Your task to perform on an android device: open app "HBO Max: Stream TV & Movies" (install if not already installed) and enter user name: "faring@outlook.com" and password: "appropriately" Image 0: 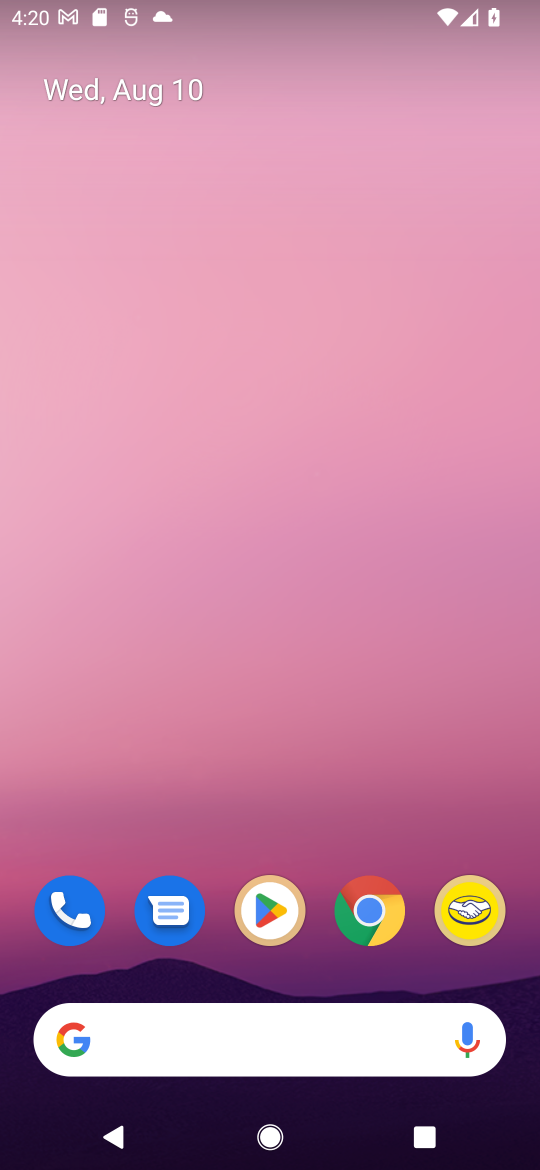
Step 0: click (253, 920)
Your task to perform on an android device: open app "HBO Max: Stream TV & Movies" (install if not already installed) and enter user name: "faring@outlook.com" and password: "appropriately" Image 1: 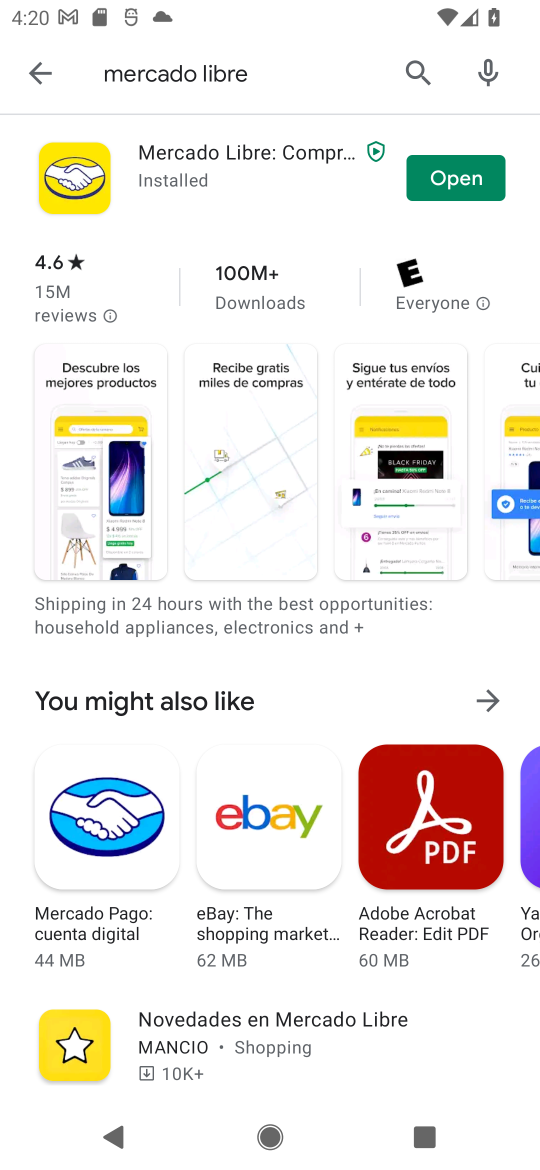
Step 1: click (413, 77)
Your task to perform on an android device: open app "HBO Max: Stream TV & Movies" (install if not already installed) and enter user name: "faring@outlook.com" and password: "appropriately" Image 2: 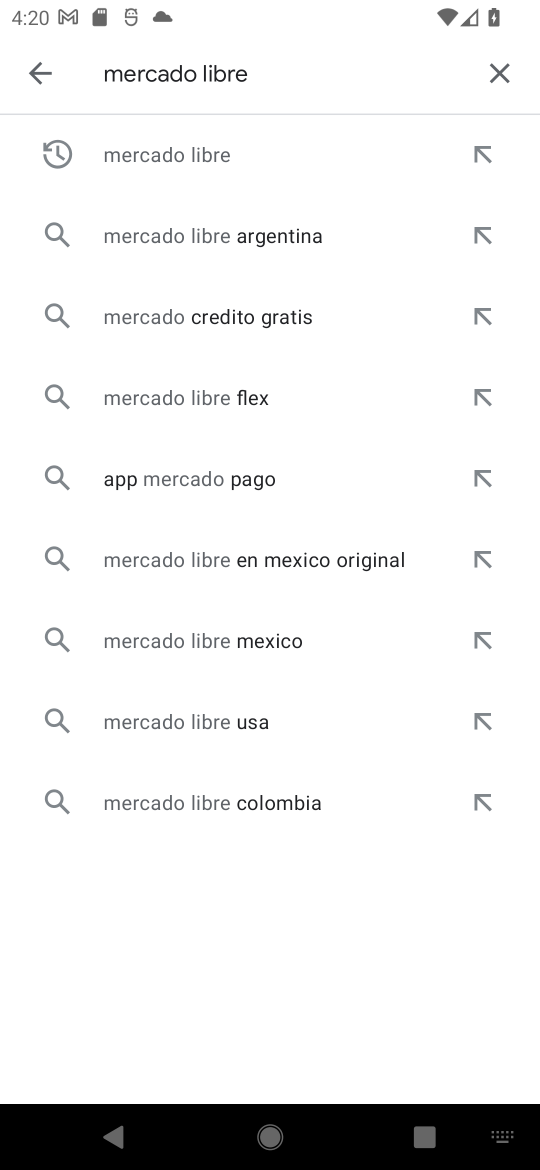
Step 2: click (496, 60)
Your task to perform on an android device: open app "HBO Max: Stream TV & Movies" (install if not already installed) and enter user name: "faring@outlook.com" and password: "appropriately" Image 3: 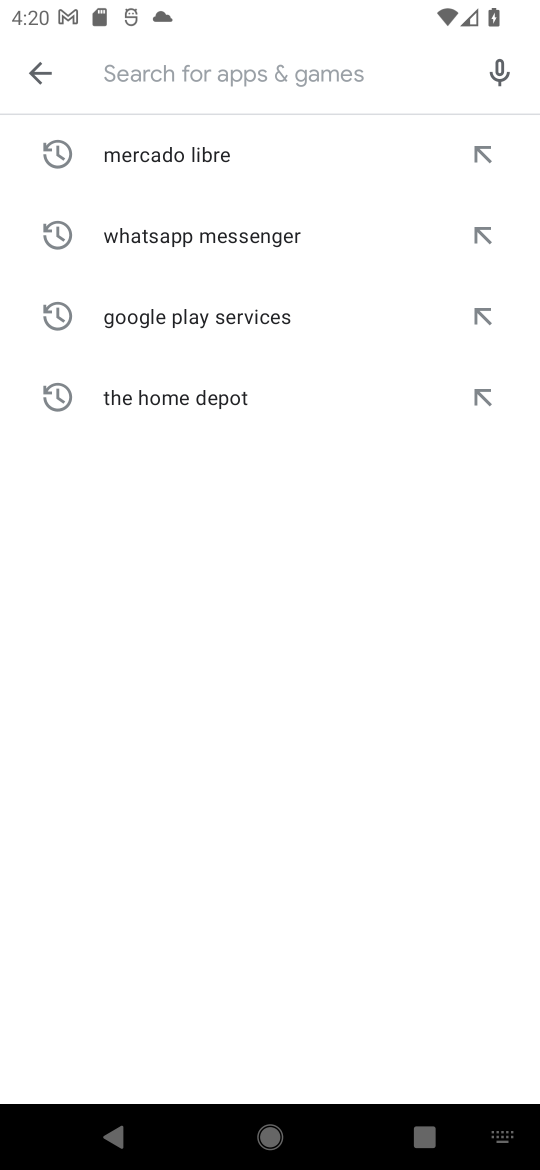
Step 3: click (289, 70)
Your task to perform on an android device: open app "HBO Max: Stream TV & Movies" (install if not already installed) and enter user name: "faring@outlook.com" and password: "appropriately" Image 4: 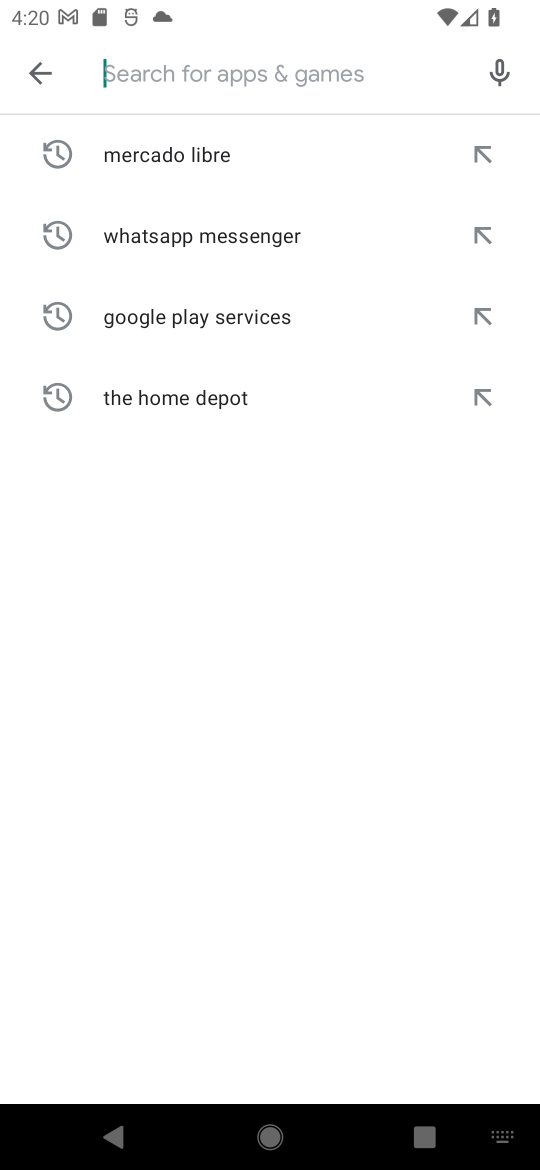
Step 4: type "hbo"
Your task to perform on an android device: open app "HBO Max: Stream TV & Movies" (install if not already installed) and enter user name: "faring@outlook.com" and password: "appropriately" Image 5: 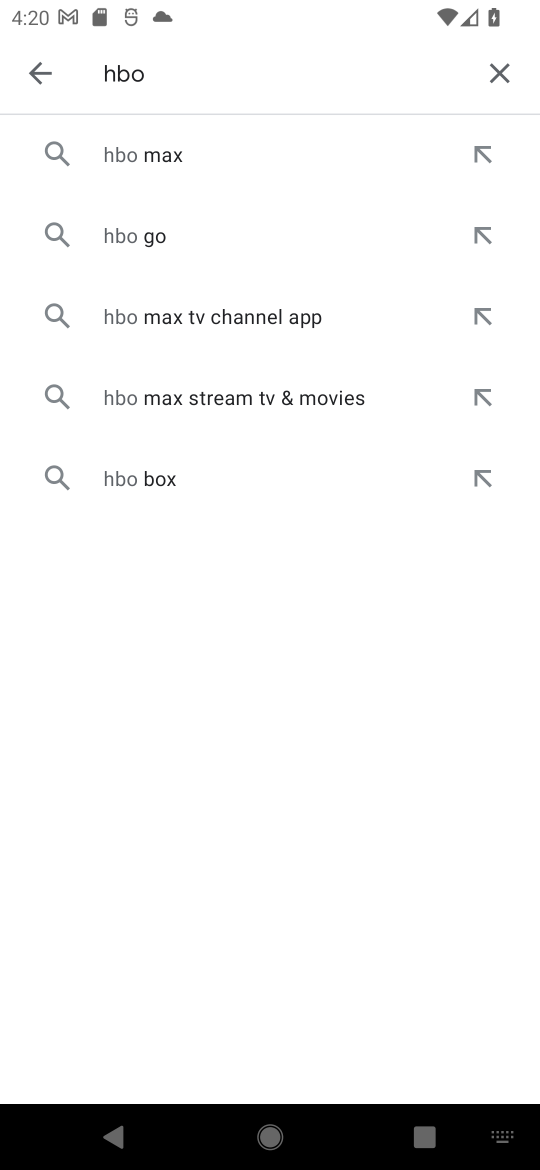
Step 5: click (156, 127)
Your task to perform on an android device: open app "HBO Max: Stream TV & Movies" (install if not already installed) and enter user name: "faring@outlook.com" and password: "appropriately" Image 6: 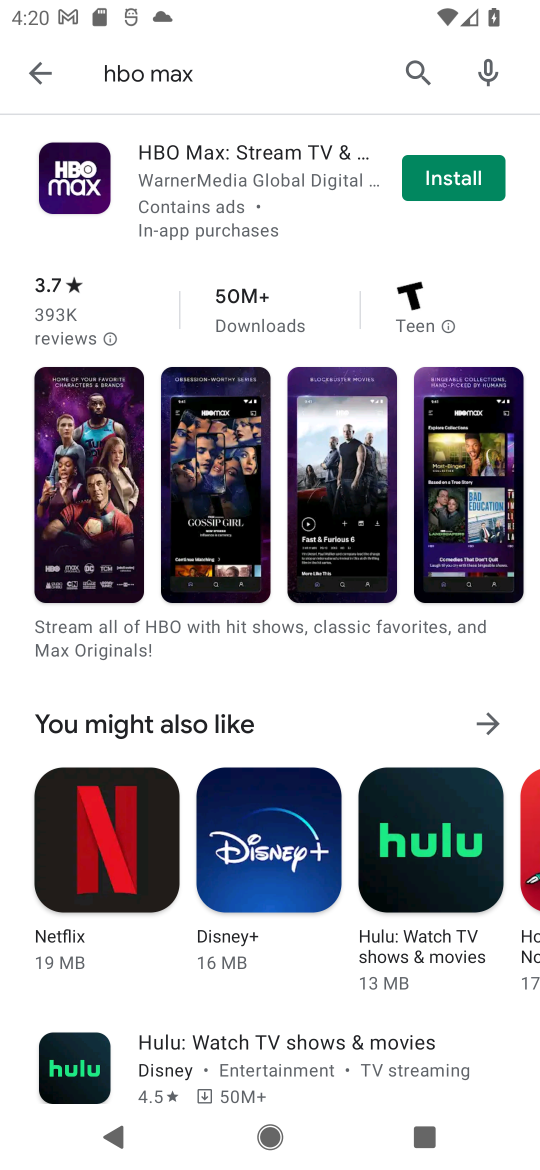
Step 6: click (508, 185)
Your task to perform on an android device: open app "HBO Max: Stream TV & Movies" (install if not already installed) and enter user name: "faring@outlook.com" and password: "appropriately" Image 7: 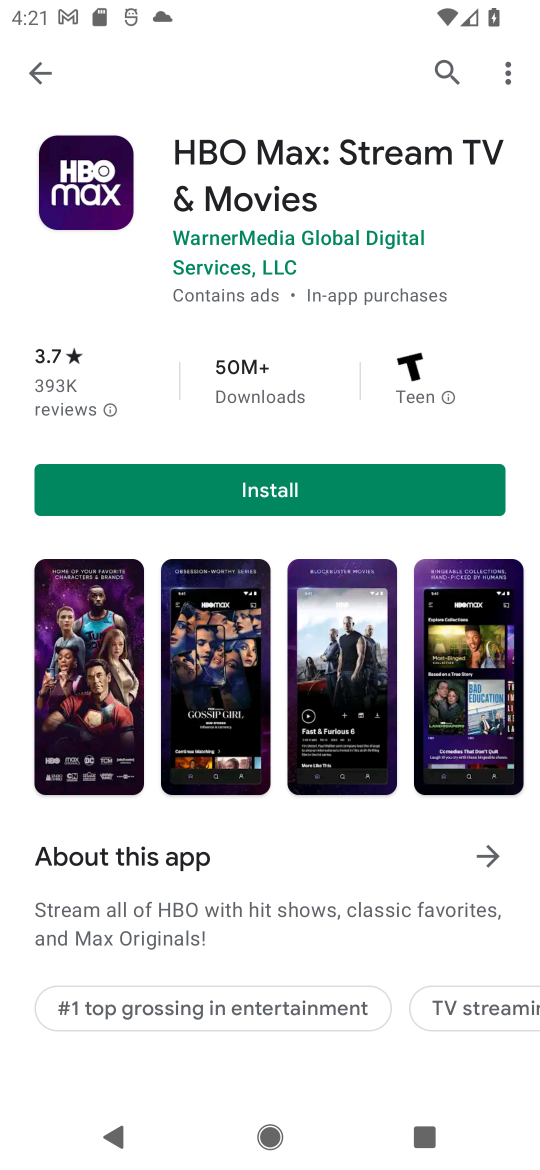
Step 7: click (262, 501)
Your task to perform on an android device: open app "HBO Max: Stream TV & Movies" (install if not already installed) and enter user name: "faring@outlook.com" and password: "appropriately" Image 8: 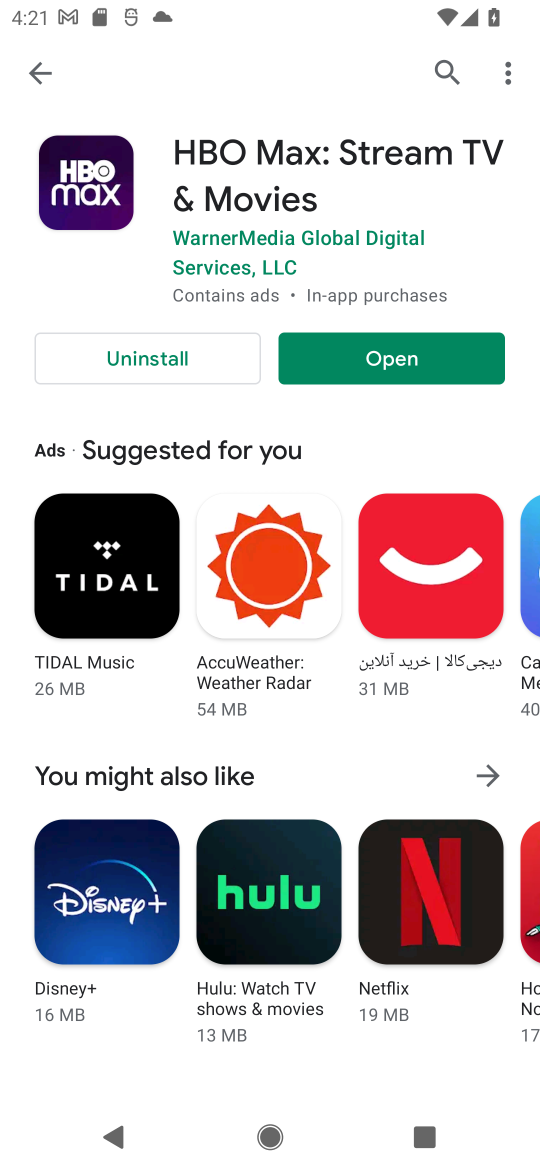
Step 8: click (384, 372)
Your task to perform on an android device: open app "HBO Max: Stream TV & Movies" (install if not already installed) and enter user name: "faring@outlook.com" and password: "appropriately" Image 9: 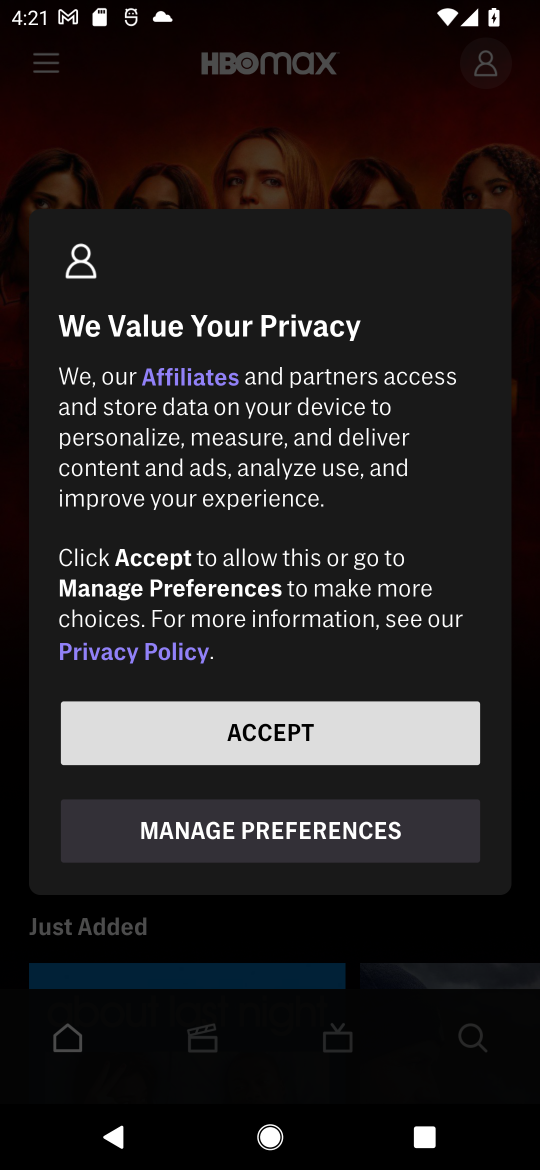
Step 9: click (308, 736)
Your task to perform on an android device: open app "HBO Max: Stream TV & Movies" (install if not already installed) and enter user name: "faring@outlook.com" and password: "appropriately" Image 10: 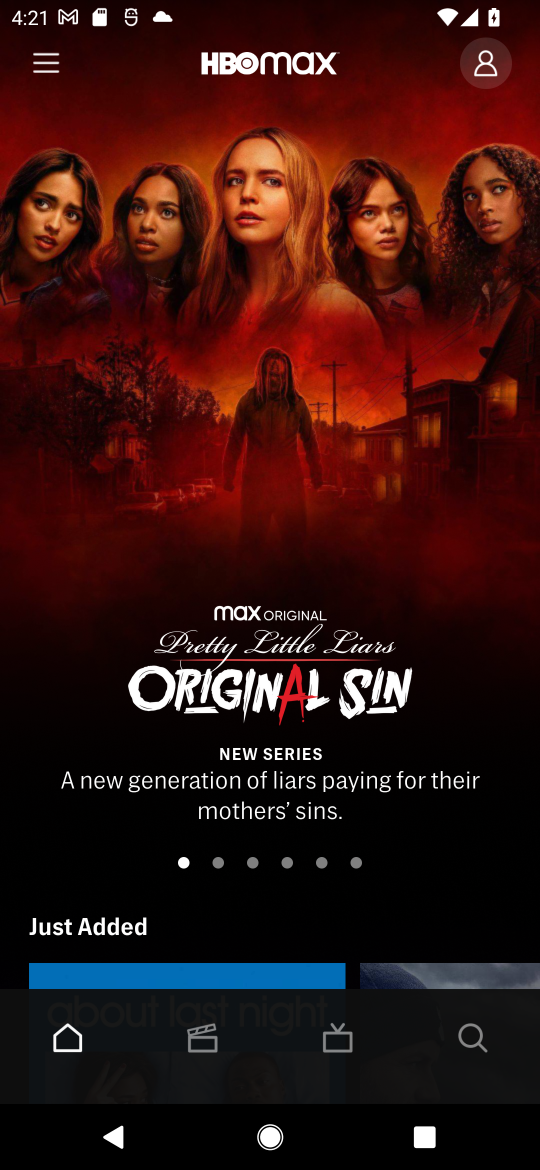
Step 10: drag from (274, 617) to (325, 885)
Your task to perform on an android device: open app "HBO Max: Stream TV & Movies" (install if not already installed) and enter user name: "faring@outlook.com" and password: "appropriately" Image 11: 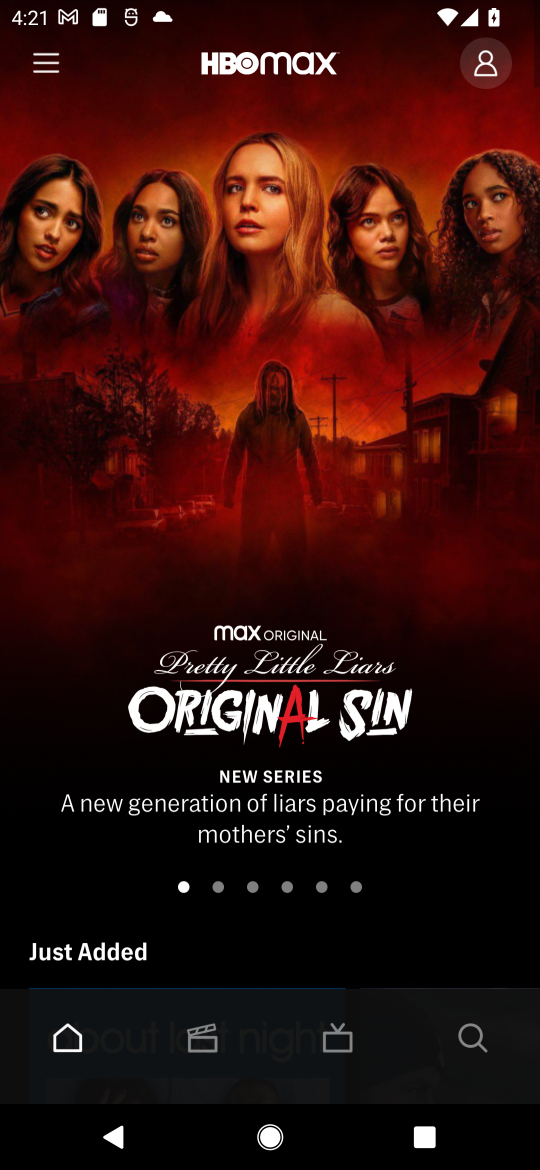
Step 11: click (496, 59)
Your task to perform on an android device: open app "HBO Max: Stream TV & Movies" (install if not already installed) and enter user name: "faring@outlook.com" and password: "appropriately" Image 12: 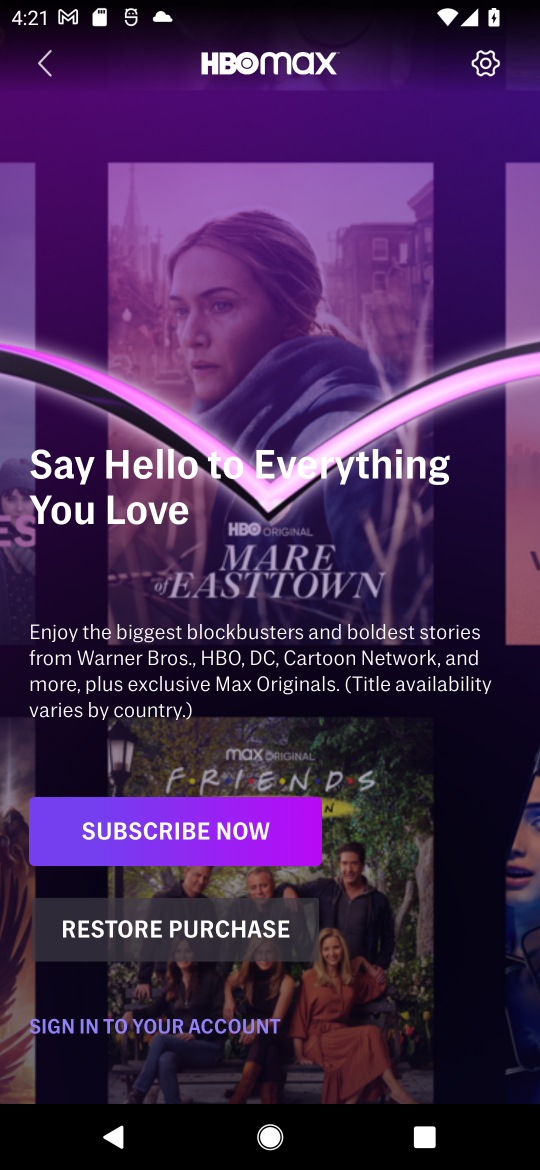
Step 12: click (174, 1015)
Your task to perform on an android device: open app "HBO Max: Stream TV & Movies" (install if not already installed) and enter user name: "faring@outlook.com" and password: "appropriately" Image 13: 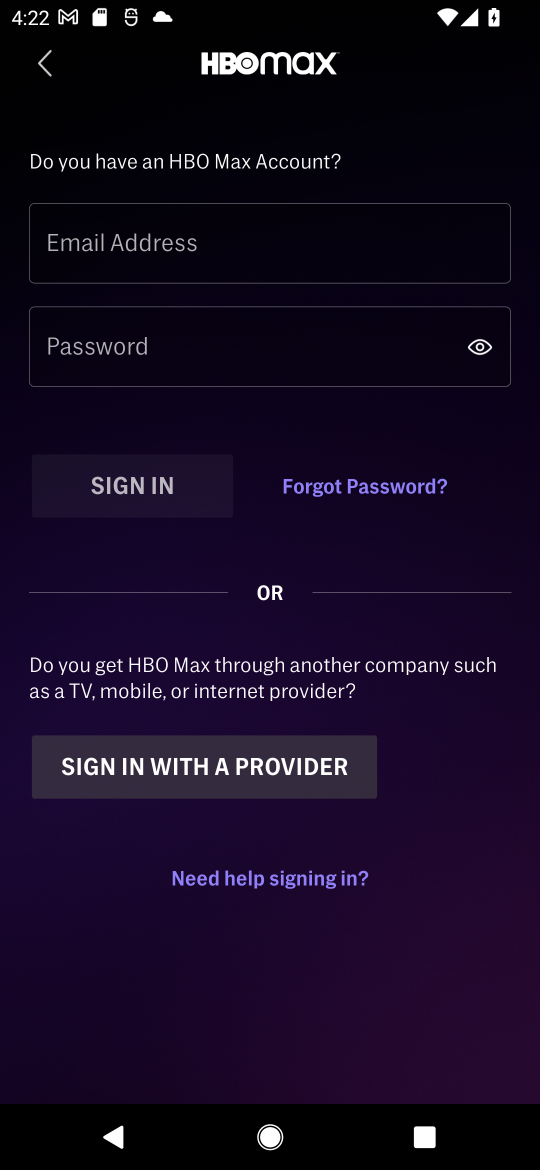
Step 13: click (178, 254)
Your task to perform on an android device: open app "HBO Max: Stream TV & Movies" (install if not already installed) and enter user name: "faring@outlook.com" and password: "appropriately" Image 14: 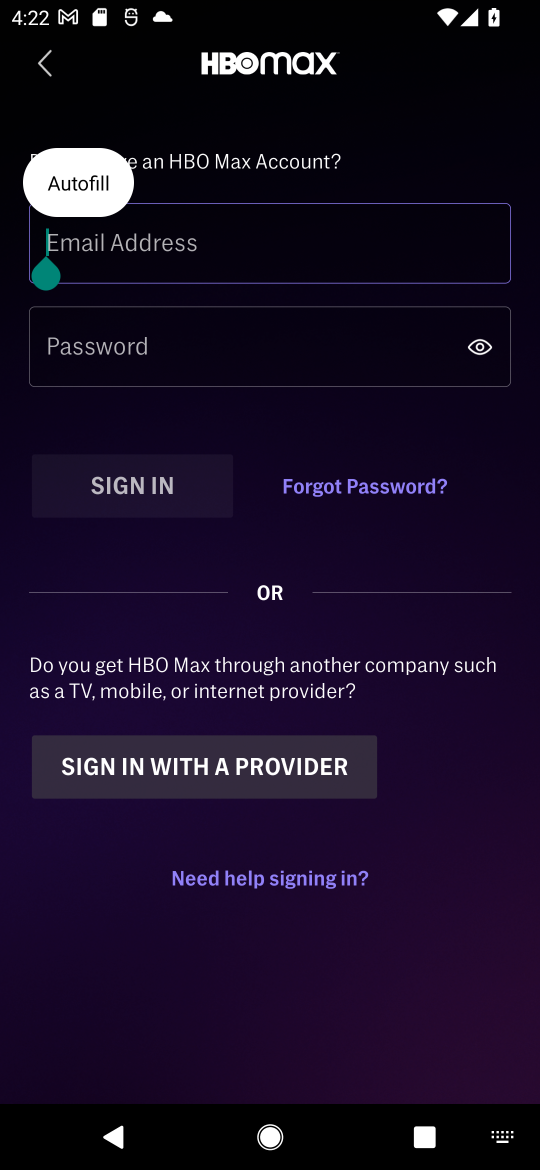
Step 14: type "faring@outlook.com"
Your task to perform on an android device: open app "HBO Max: Stream TV & Movies" (install if not already installed) and enter user name: "faring@outlook.com" and password: "appropriately" Image 15: 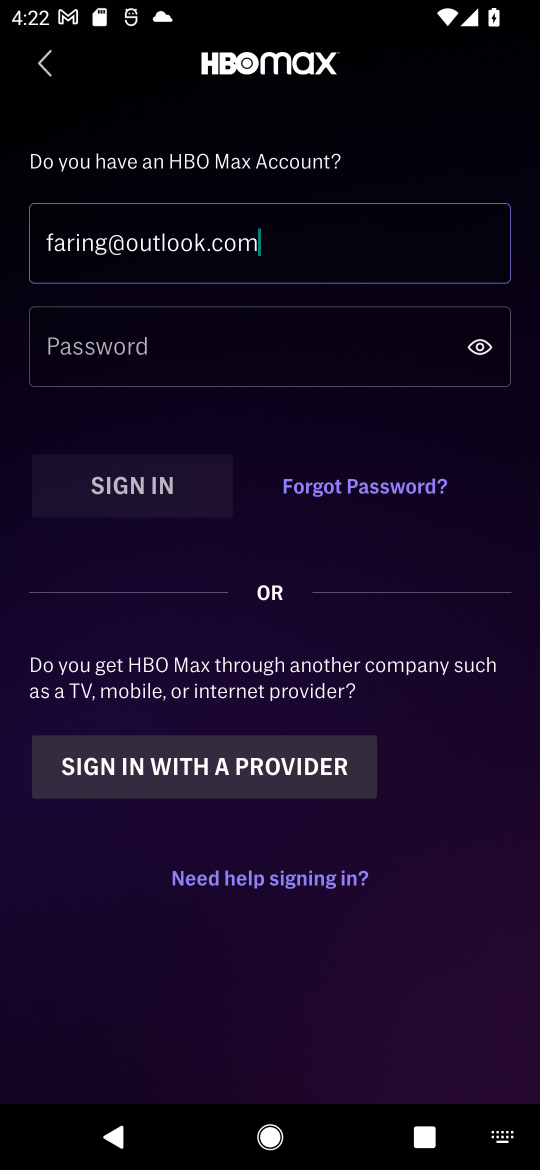
Step 15: click (105, 355)
Your task to perform on an android device: open app "HBO Max: Stream TV & Movies" (install if not already installed) and enter user name: "faring@outlook.com" and password: "appropriately" Image 16: 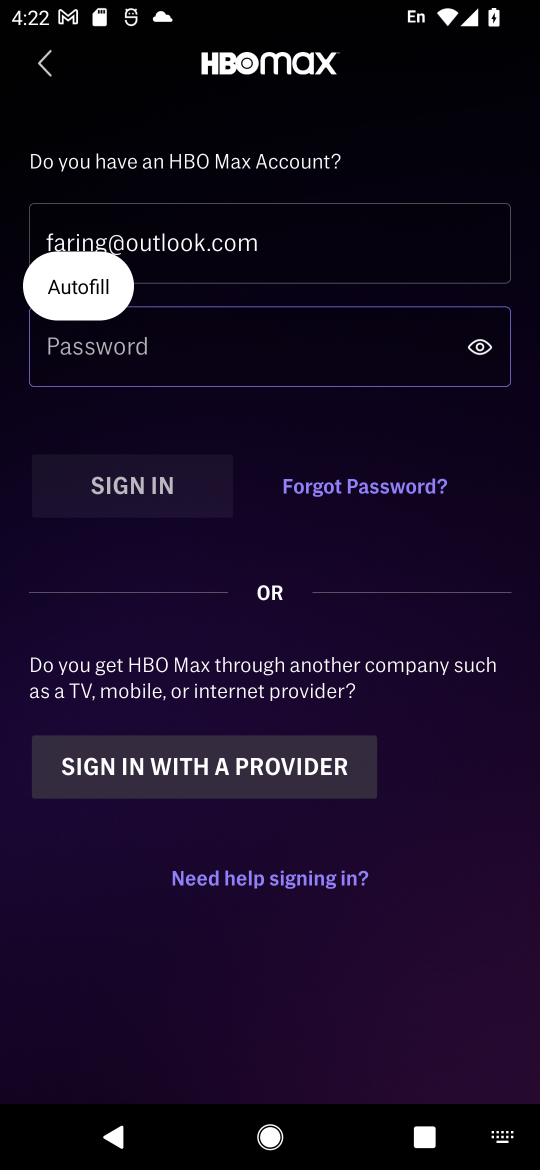
Step 16: click (158, 353)
Your task to perform on an android device: open app "HBO Max: Stream TV & Movies" (install if not already installed) and enter user name: "faring@outlook.com" and password: "appropriately" Image 17: 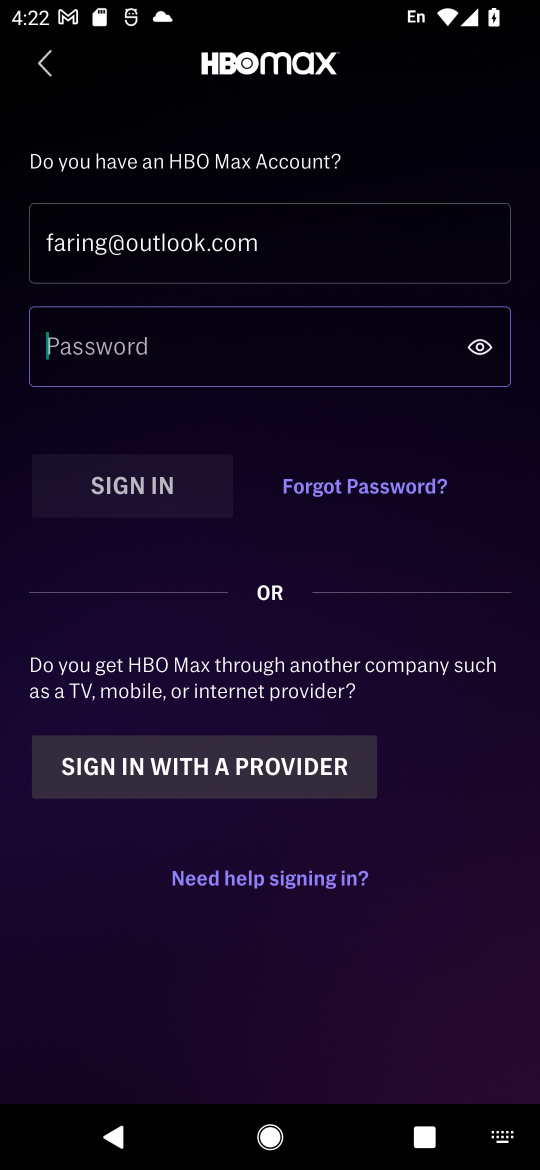
Step 17: type "appropriately"
Your task to perform on an android device: open app "HBO Max: Stream TV & Movies" (install if not already installed) and enter user name: "faring@outlook.com" and password: "appropriately" Image 18: 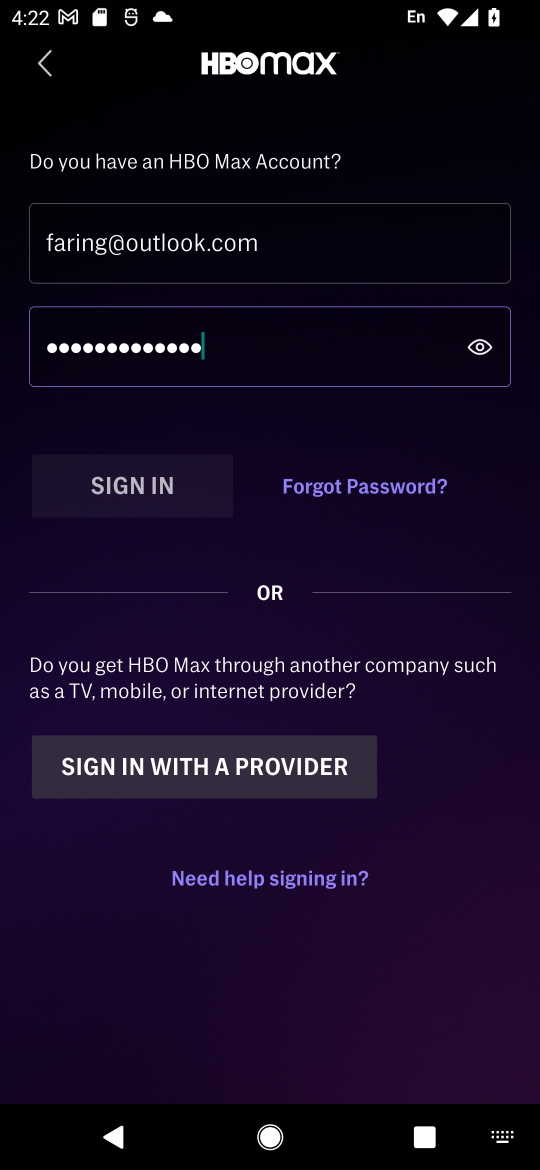
Step 18: task complete